Your task to perform on an android device: change the clock display to show seconds Image 0: 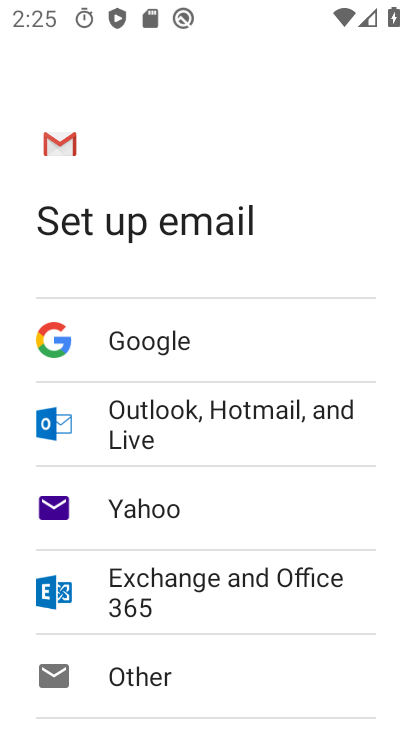
Step 0: press back button
Your task to perform on an android device: change the clock display to show seconds Image 1: 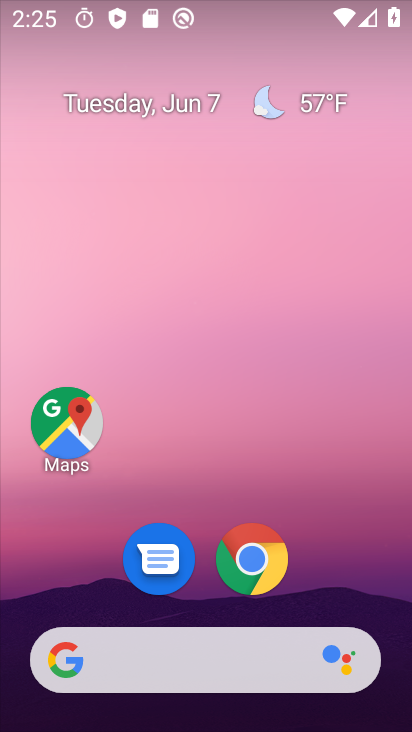
Step 1: drag from (343, 599) to (279, 15)
Your task to perform on an android device: change the clock display to show seconds Image 2: 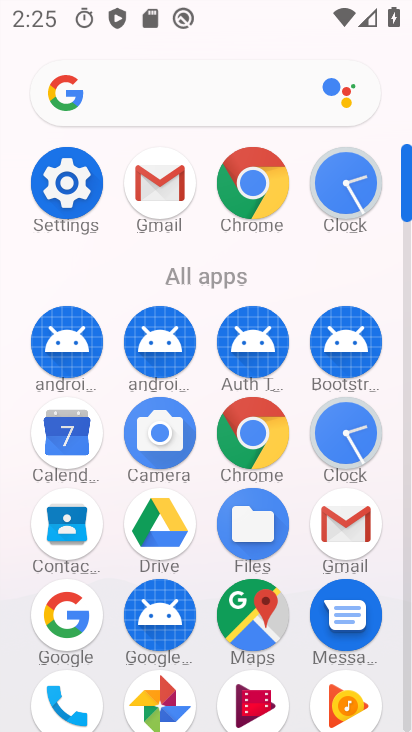
Step 2: drag from (7, 654) to (26, 277)
Your task to perform on an android device: change the clock display to show seconds Image 3: 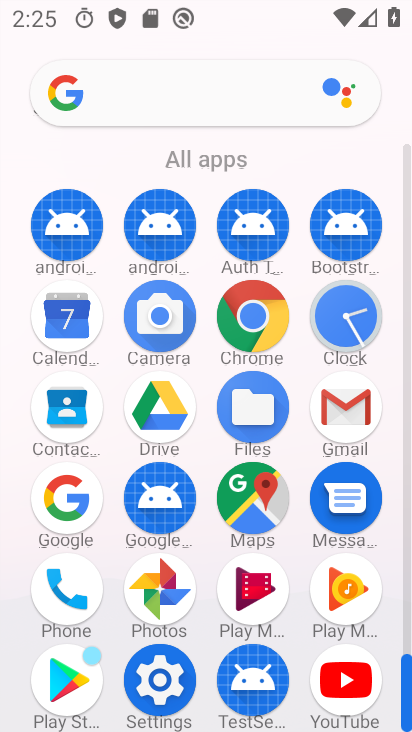
Step 3: click (343, 308)
Your task to perform on an android device: change the clock display to show seconds Image 4: 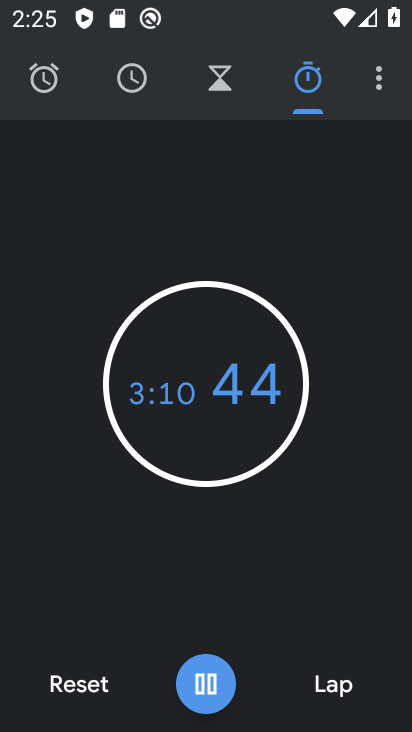
Step 4: drag from (374, 69) to (333, 149)
Your task to perform on an android device: change the clock display to show seconds Image 5: 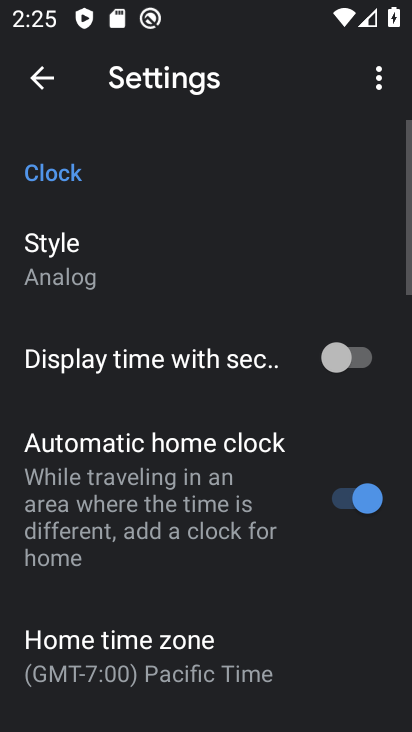
Step 5: click (346, 357)
Your task to perform on an android device: change the clock display to show seconds Image 6: 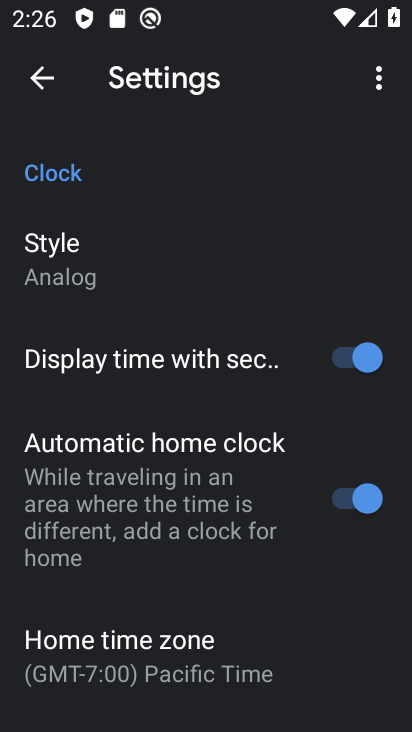
Step 6: task complete